Your task to perform on an android device: What's on my calendar tomorrow? Image 0: 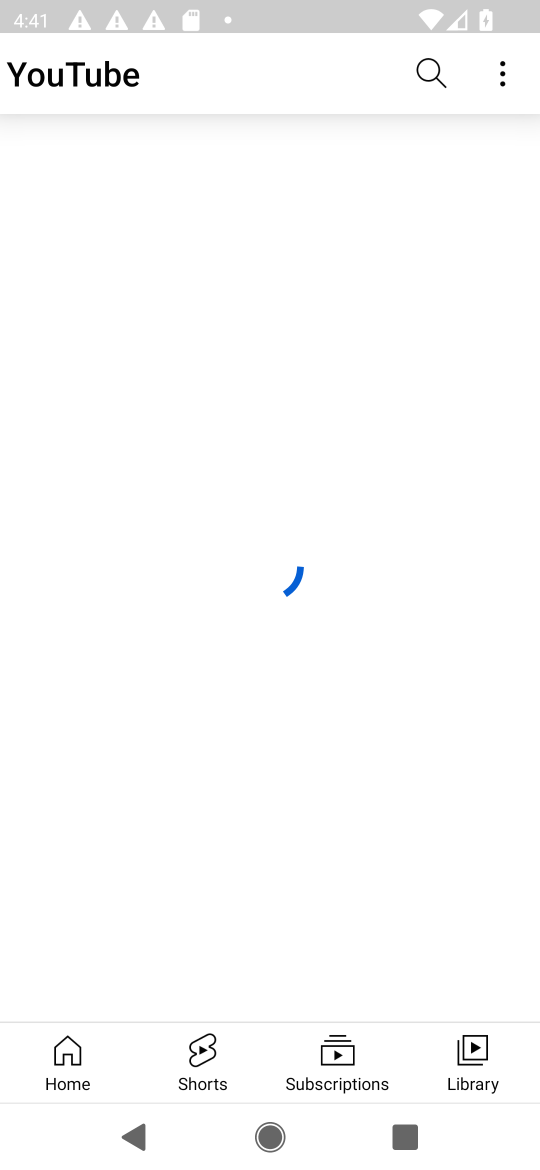
Step 0: press home button
Your task to perform on an android device: What's on my calendar tomorrow? Image 1: 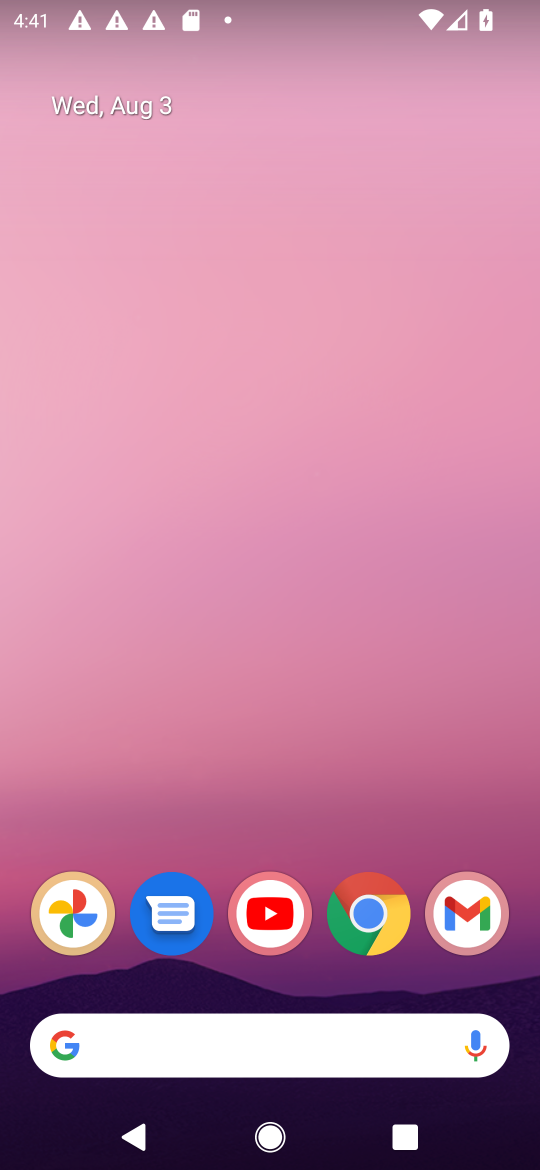
Step 1: drag from (307, 812) to (321, 2)
Your task to perform on an android device: What's on my calendar tomorrow? Image 2: 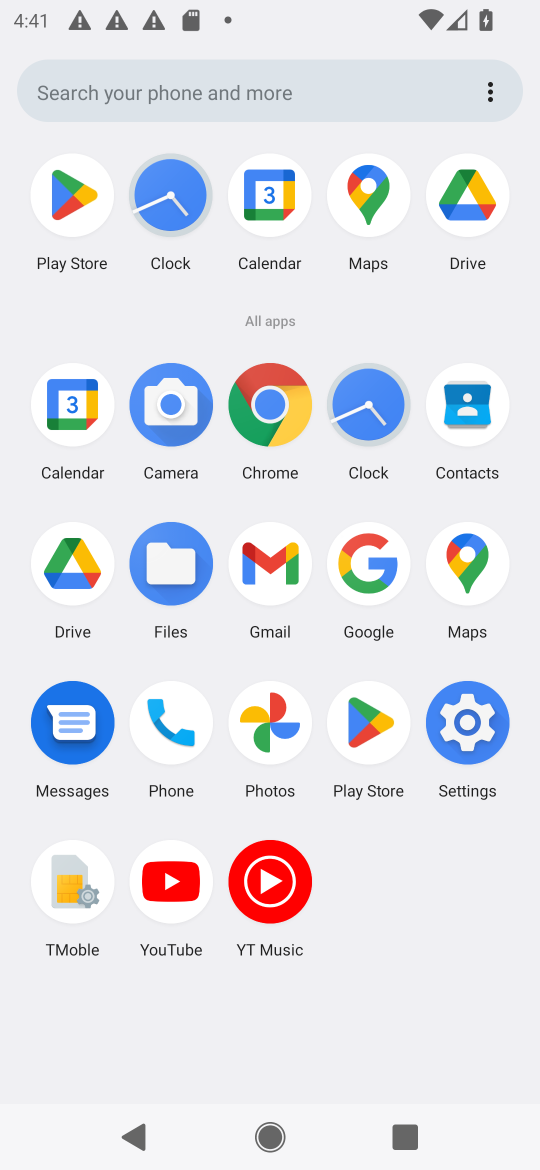
Step 2: click (81, 406)
Your task to perform on an android device: What's on my calendar tomorrow? Image 3: 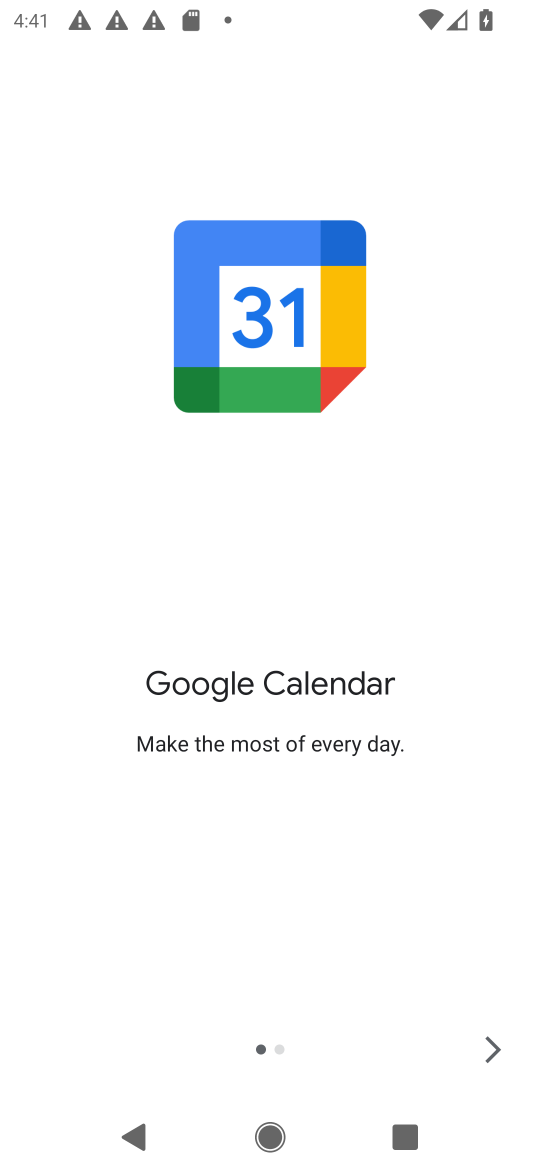
Step 3: click (485, 1045)
Your task to perform on an android device: What's on my calendar tomorrow? Image 4: 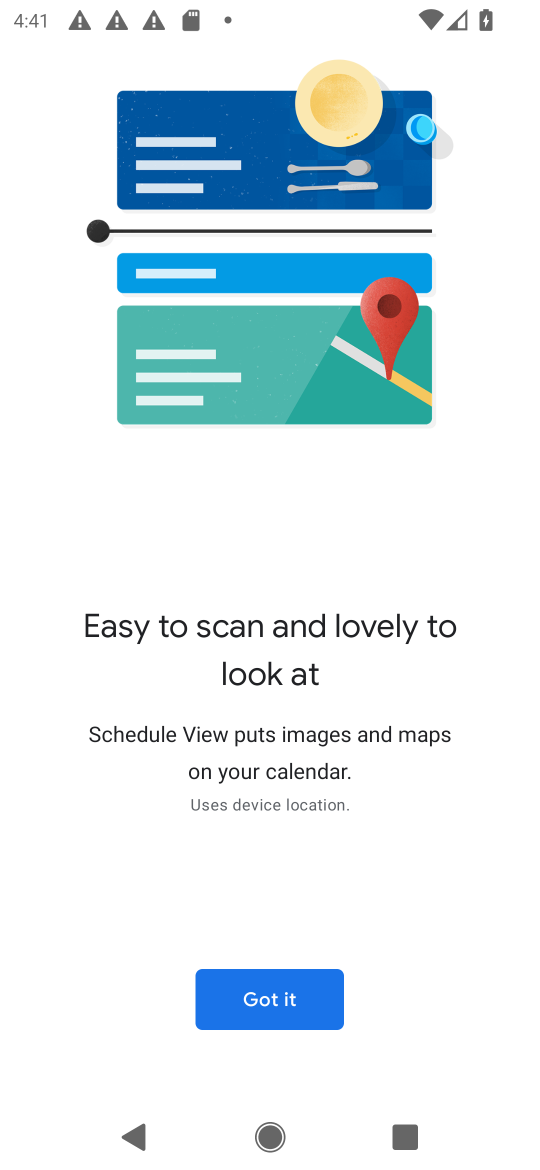
Step 4: click (328, 999)
Your task to perform on an android device: What's on my calendar tomorrow? Image 5: 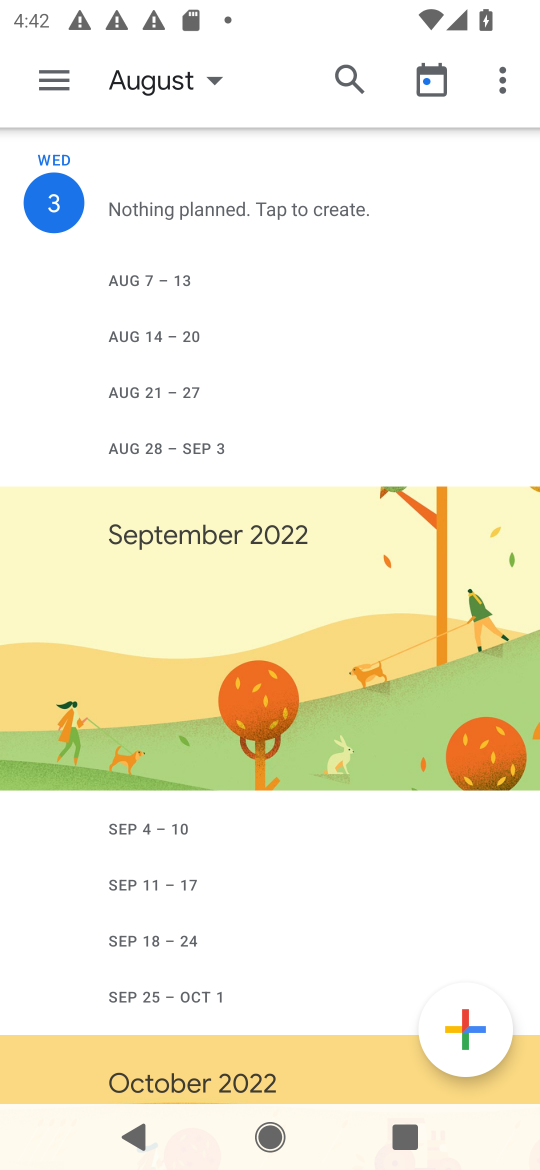
Step 5: click (58, 201)
Your task to perform on an android device: What's on my calendar tomorrow? Image 6: 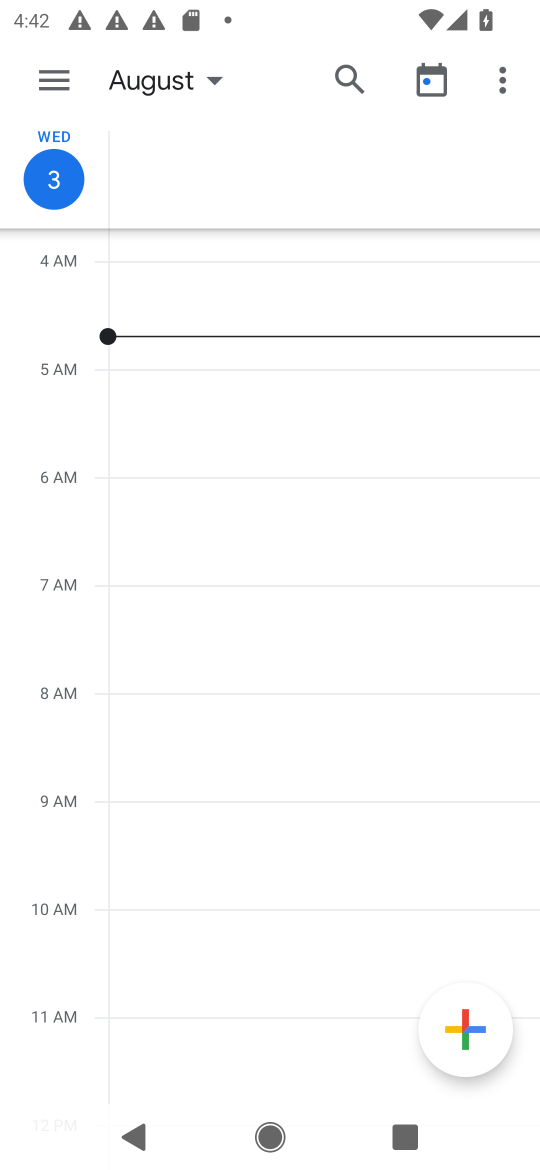
Step 6: click (53, 250)
Your task to perform on an android device: What's on my calendar tomorrow? Image 7: 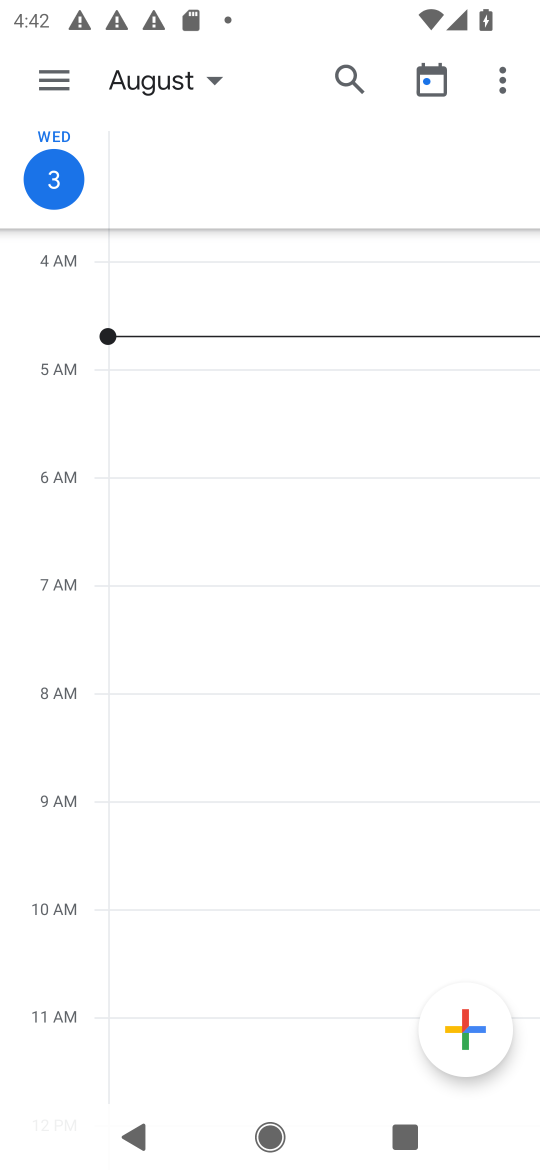
Step 7: click (51, 67)
Your task to perform on an android device: What's on my calendar tomorrow? Image 8: 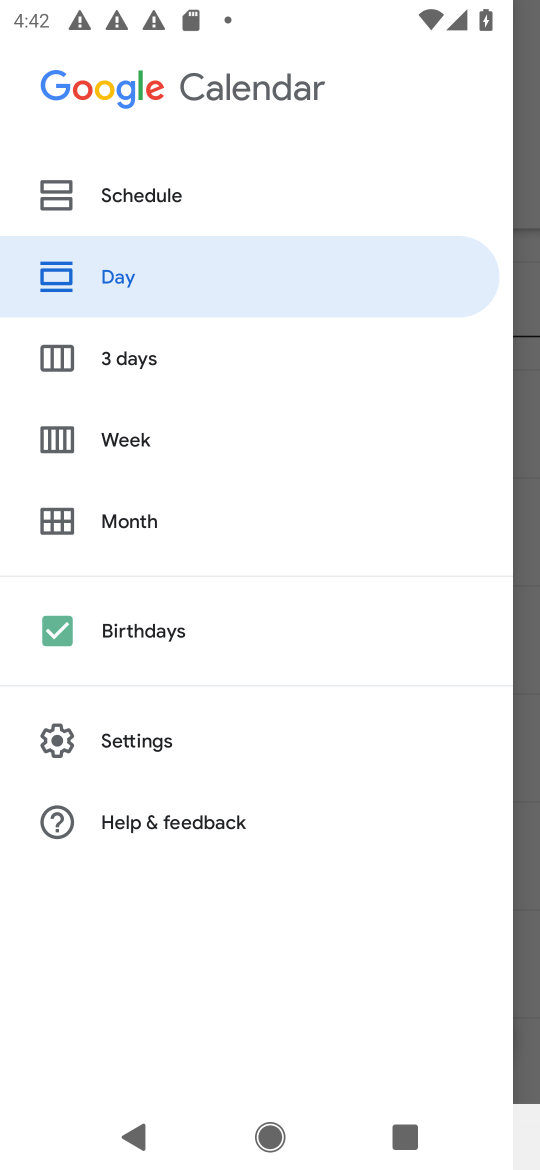
Step 8: click (101, 345)
Your task to perform on an android device: What's on my calendar tomorrow? Image 9: 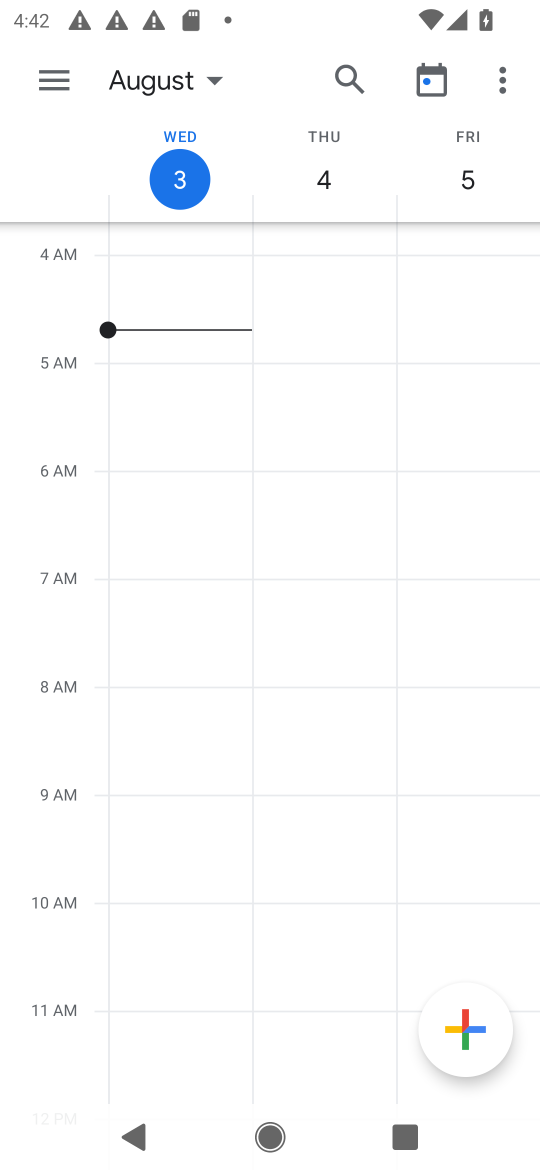
Step 9: drag from (283, 859) to (295, 284)
Your task to perform on an android device: What's on my calendar tomorrow? Image 10: 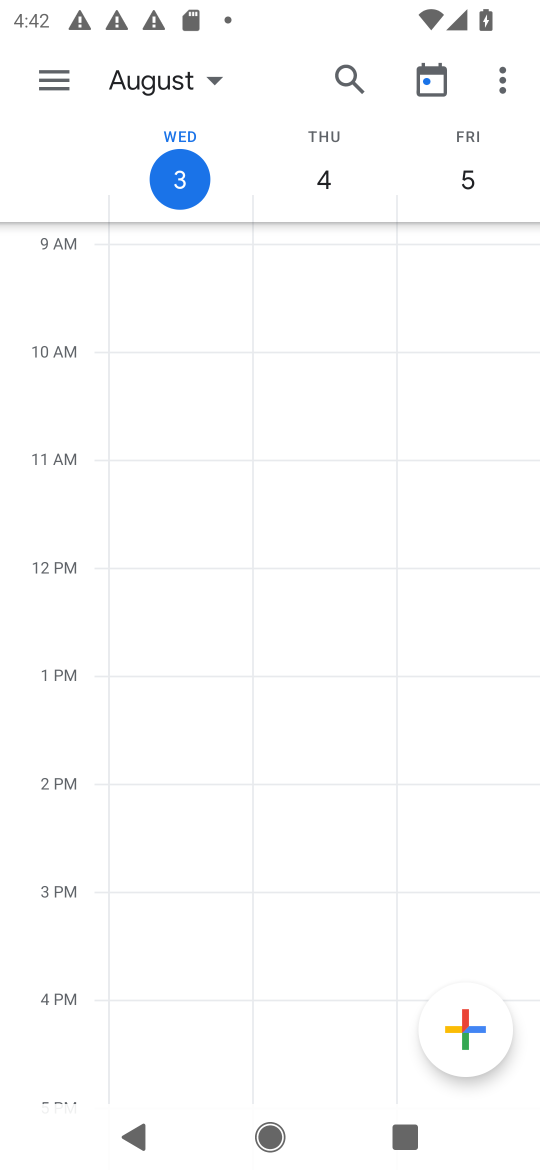
Step 10: drag from (244, 732) to (245, 257)
Your task to perform on an android device: What's on my calendar tomorrow? Image 11: 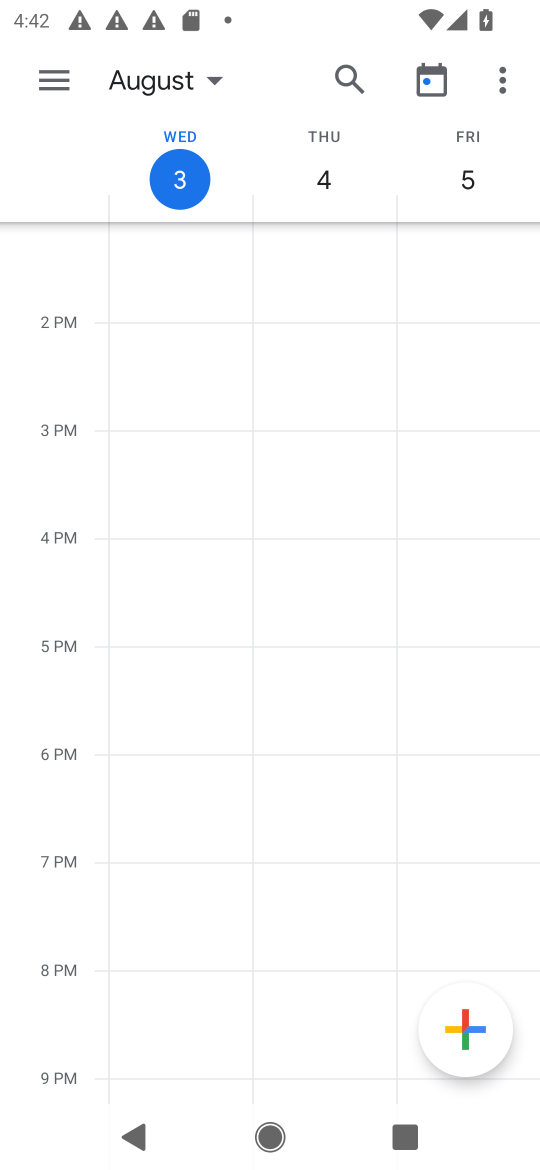
Step 11: drag from (272, 795) to (319, 188)
Your task to perform on an android device: What's on my calendar tomorrow? Image 12: 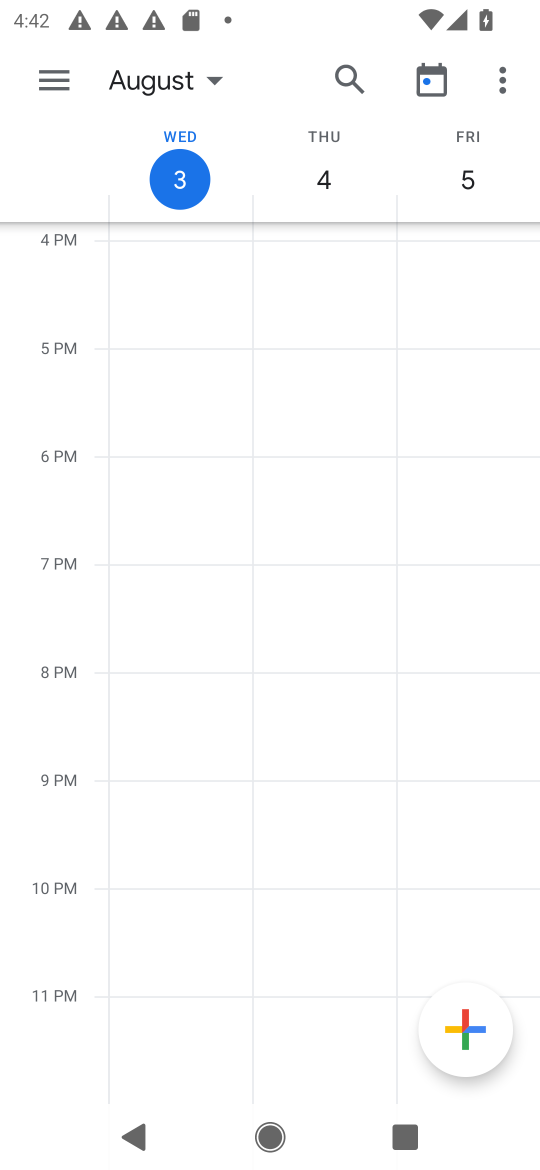
Step 12: drag from (293, 323) to (305, 865)
Your task to perform on an android device: What's on my calendar tomorrow? Image 13: 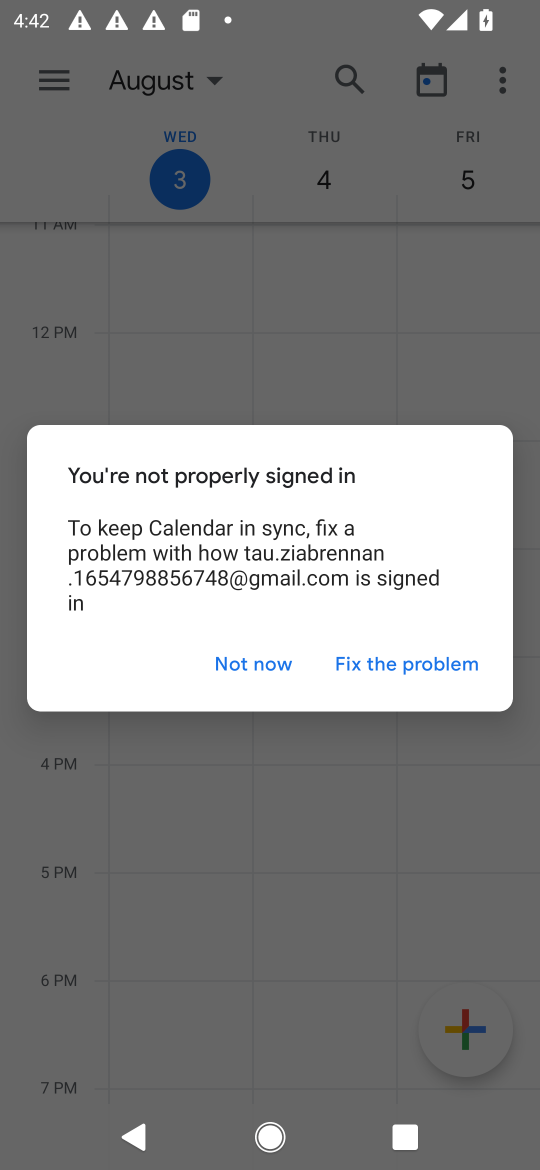
Step 13: click (273, 663)
Your task to perform on an android device: What's on my calendar tomorrow? Image 14: 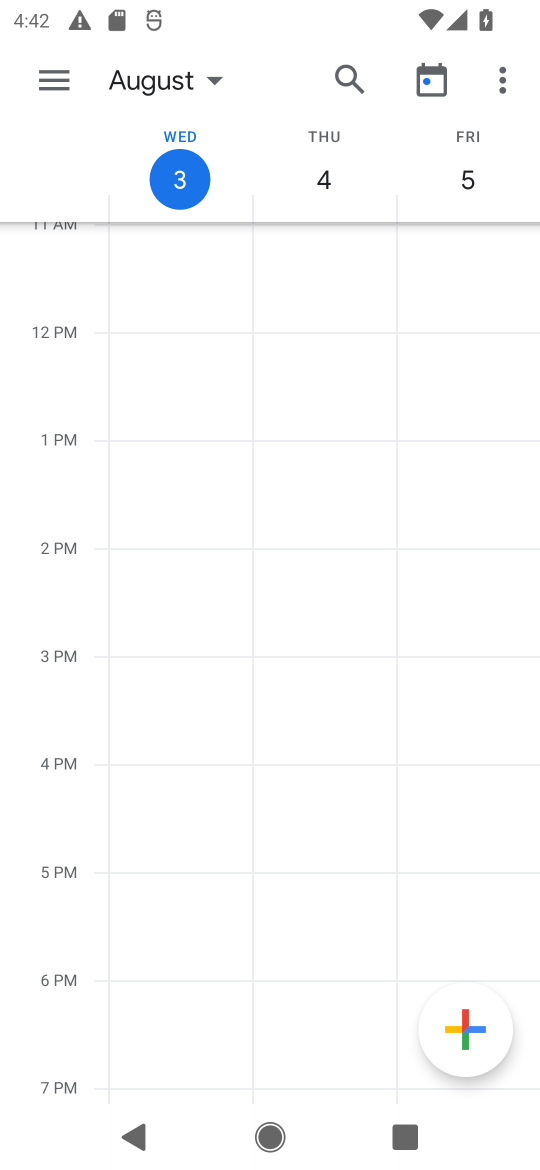
Step 14: task complete